Your task to perform on an android device: Open calendar and show me the third week of next month Image 0: 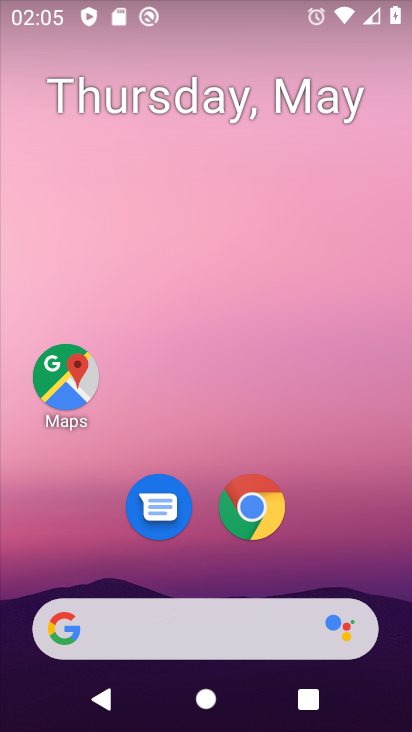
Step 0: drag from (346, 545) to (309, 376)
Your task to perform on an android device: Open calendar and show me the third week of next month Image 1: 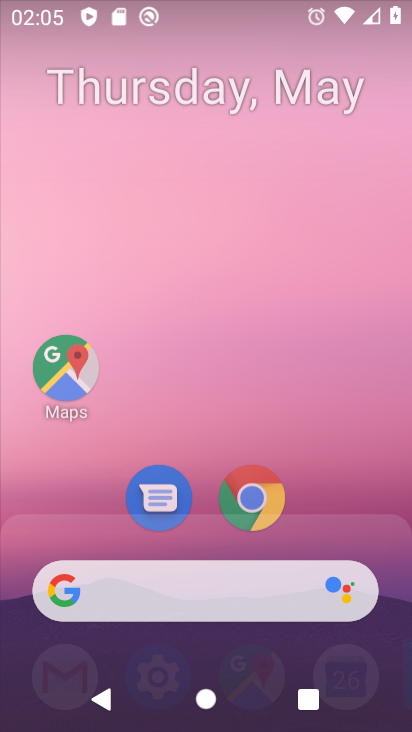
Step 1: click (309, 376)
Your task to perform on an android device: Open calendar and show me the third week of next month Image 2: 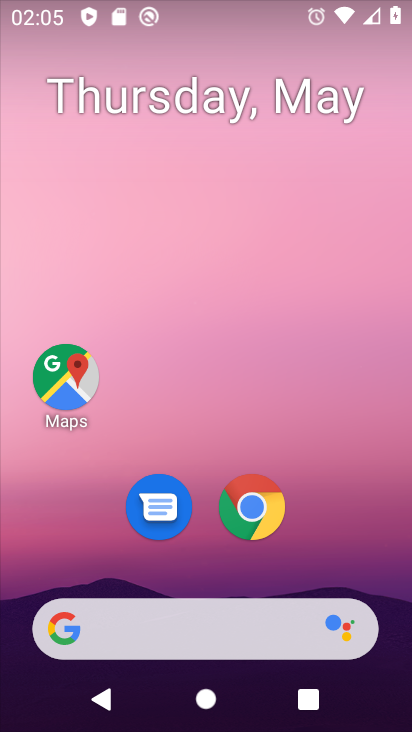
Step 2: click (309, 376)
Your task to perform on an android device: Open calendar and show me the third week of next month Image 3: 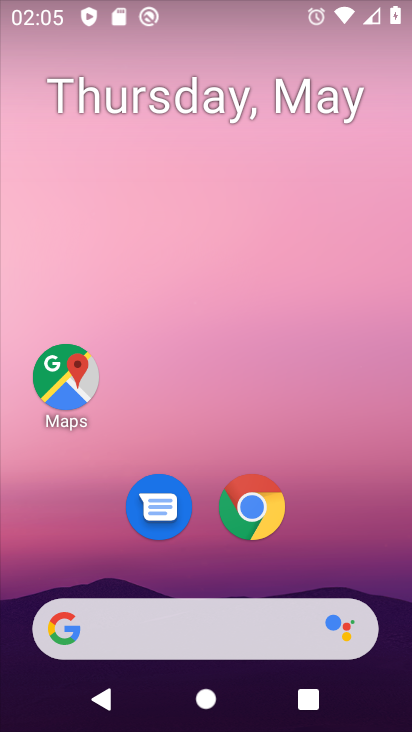
Step 3: drag from (325, 554) to (328, 185)
Your task to perform on an android device: Open calendar and show me the third week of next month Image 4: 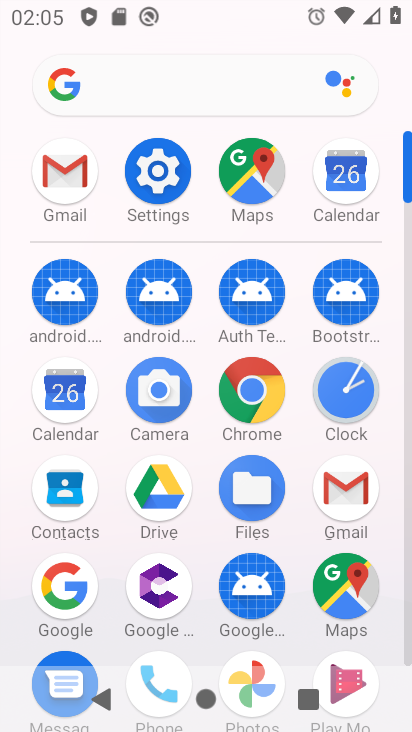
Step 4: click (315, 199)
Your task to perform on an android device: Open calendar and show me the third week of next month Image 5: 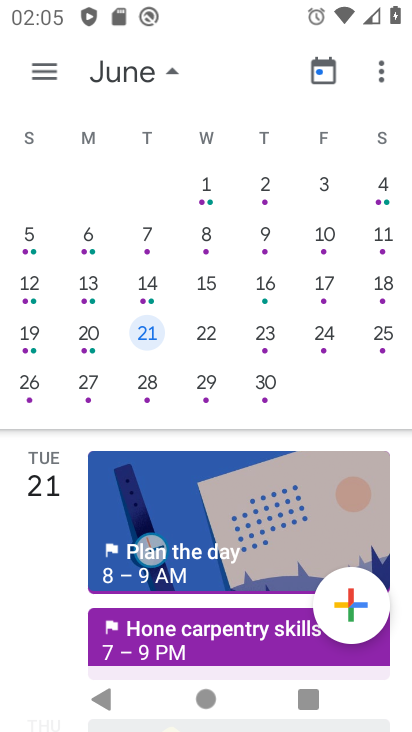
Step 5: task complete